Your task to perform on an android device: Open calendar and show me the second week of next month Image 0: 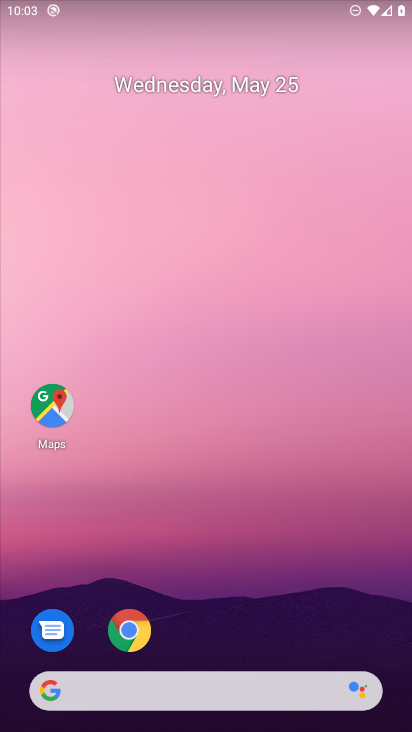
Step 0: drag from (201, 675) to (208, 455)
Your task to perform on an android device: Open calendar and show me the second week of next month Image 1: 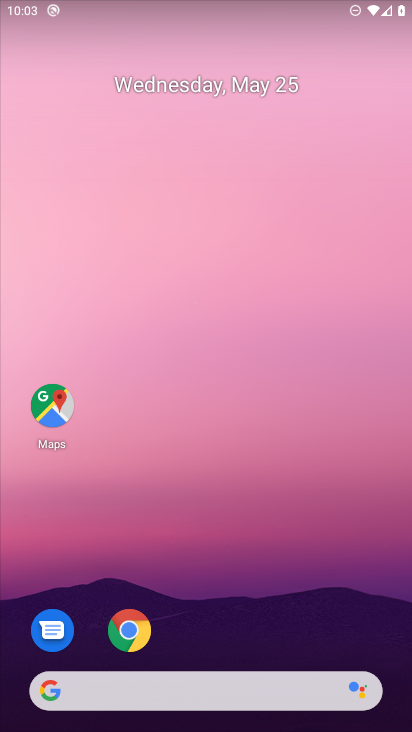
Step 1: drag from (265, 636) to (265, 281)
Your task to perform on an android device: Open calendar and show me the second week of next month Image 2: 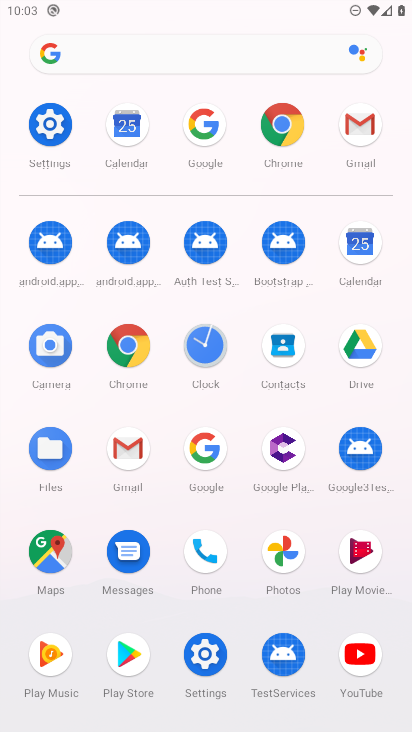
Step 2: click (352, 244)
Your task to perform on an android device: Open calendar and show me the second week of next month Image 3: 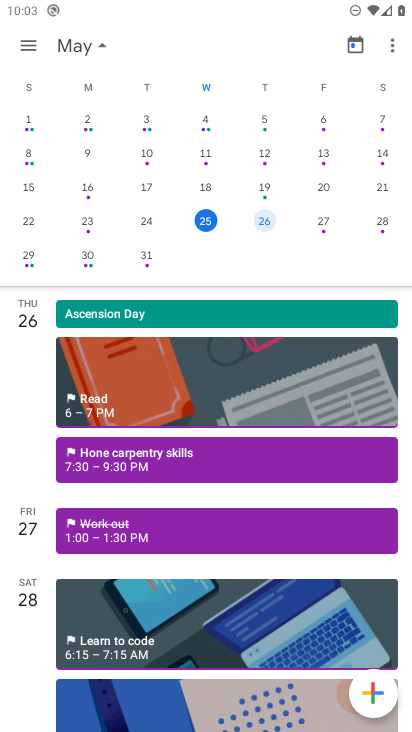
Step 3: drag from (386, 185) to (3, 209)
Your task to perform on an android device: Open calendar and show me the second week of next month Image 4: 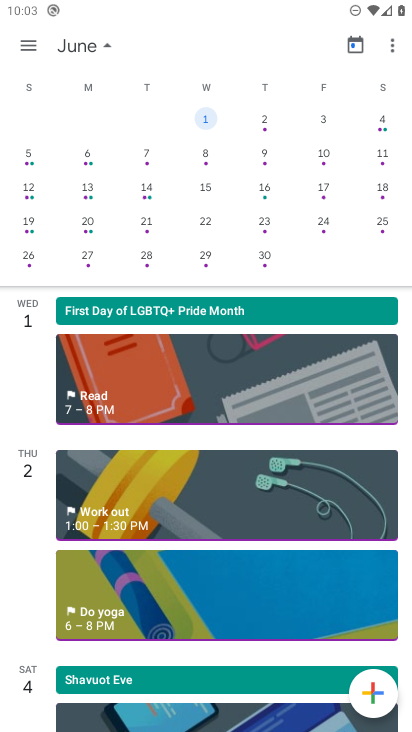
Step 4: click (28, 154)
Your task to perform on an android device: Open calendar and show me the second week of next month Image 5: 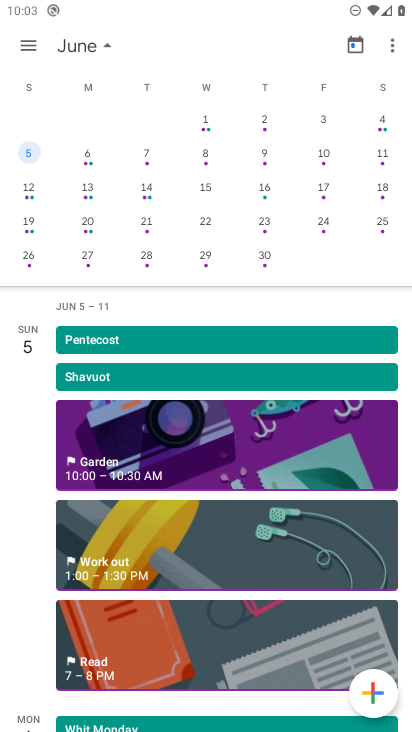
Step 5: task complete